Your task to perform on an android device: Open the stopwatch Image 0: 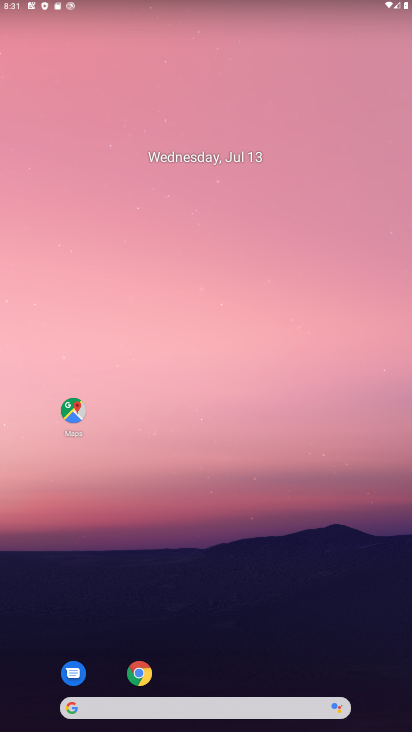
Step 0: drag from (251, 646) to (246, 133)
Your task to perform on an android device: Open the stopwatch Image 1: 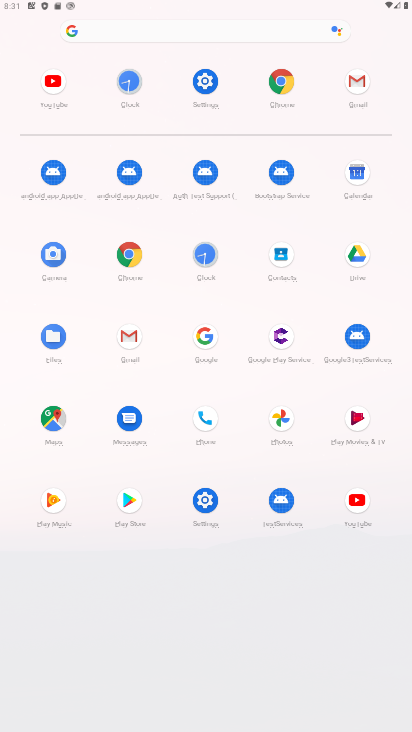
Step 1: click (204, 255)
Your task to perform on an android device: Open the stopwatch Image 2: 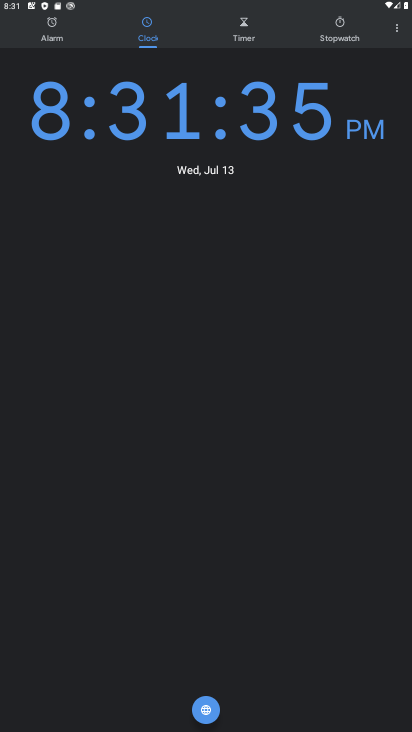
Step 2: click (348, 29)
Your task to perform on an android device: Open the stopwatch Image 3: 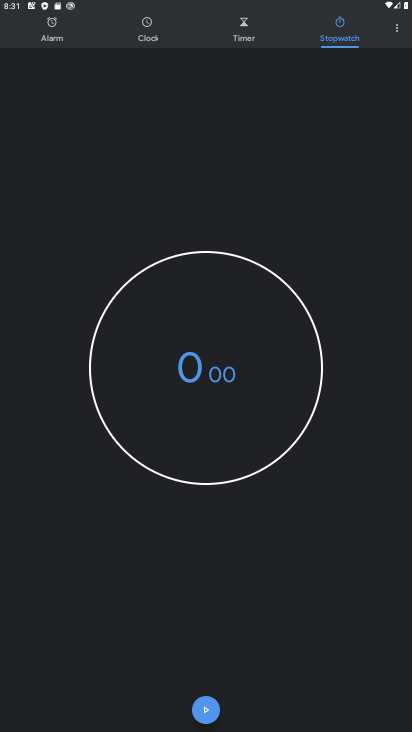
Step 3: task complete